Your task to perform on an android device: set the stopwatch Image 0: 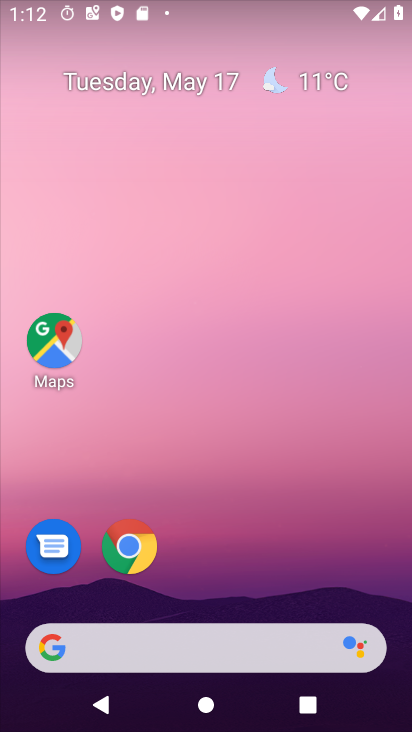
Step 0: press home button
Your task to perform on an android device: set the stopwatch Image 1: 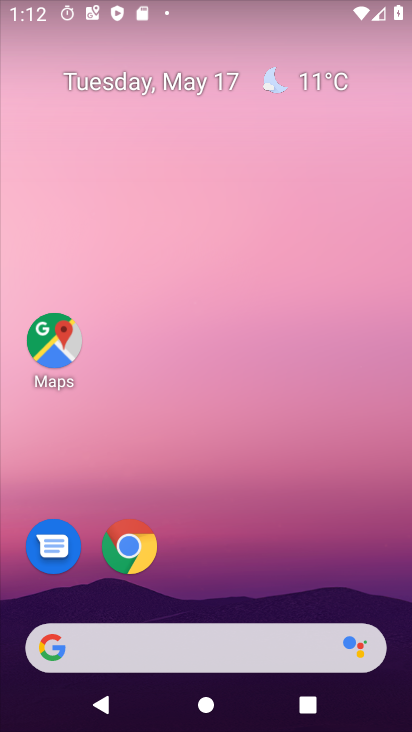
Step 1: drag from (149, 624) to (337, 76)
Your task to perform on an android device: set the stopwatch Image 2: 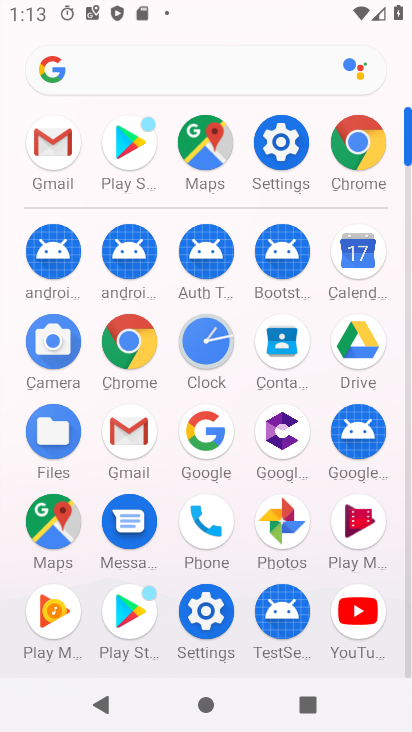
Step 2: click (194, 357)
Your task to perform on an android device: set the stopwatch Image 3: 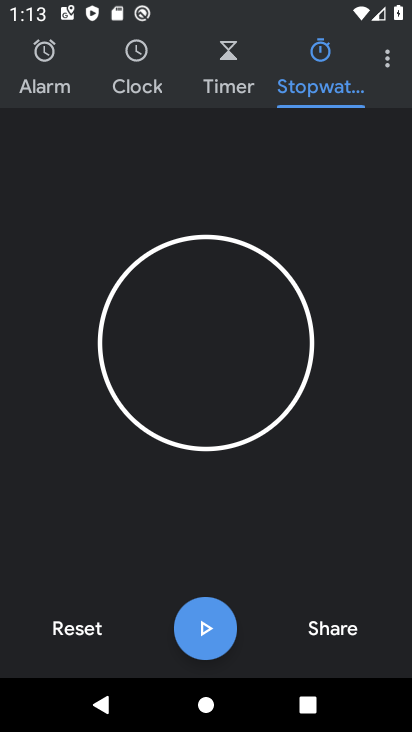
Step 3: click (82, 622)
Your task to perform on an android device: set the stopwatch Image 4: 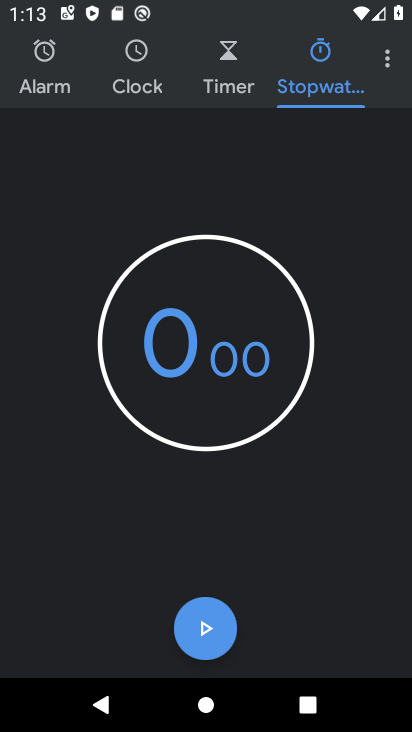
Step 4: click (226, 361)
Your task to perform on an android device: set the stopwatch Image 5: 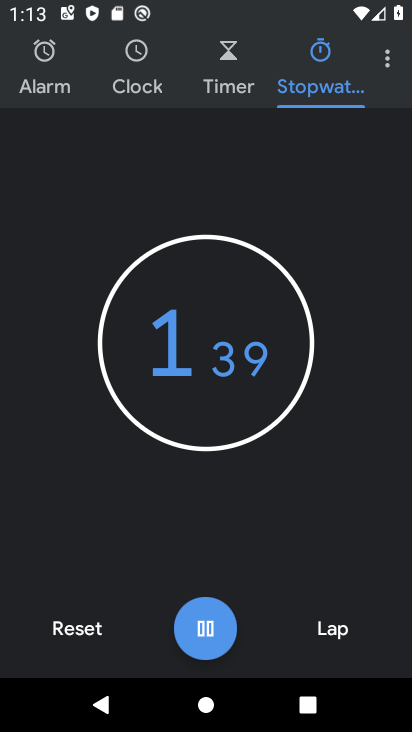
Step 5: click (226, 363)
Your task to perform on an android device: set the stopwatch Image 6: 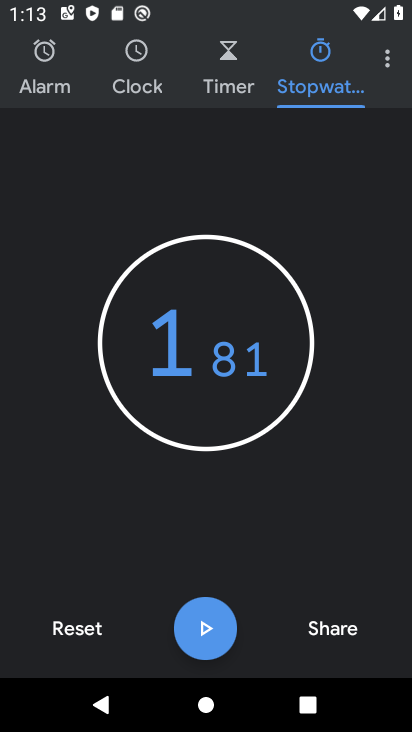
Step 6: task complete